Your task to perform on an android device: check battery use Image 0: 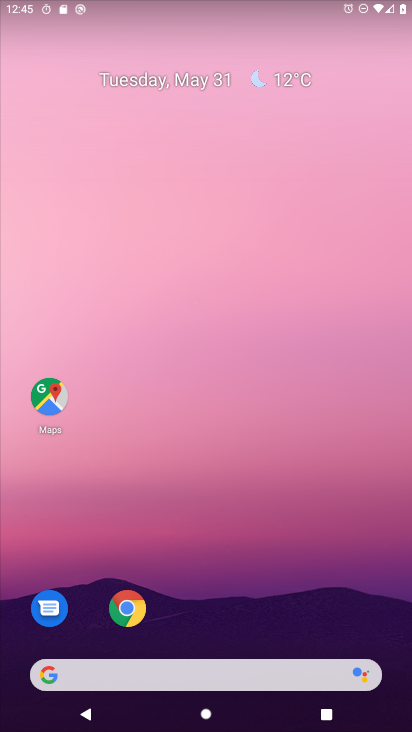
Step 0: drag from (241, 562) to (238, 12)
Your task to perform on an android device: check battery use Image 1: 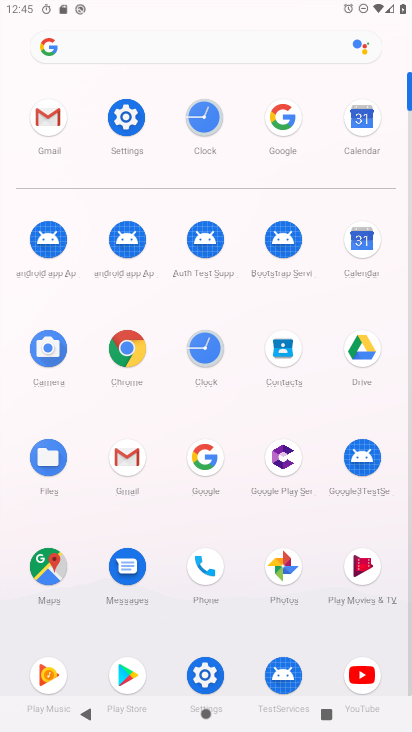
Step 1: click (129, 113)
Your task to perform on an android device: check battery use Image 2: 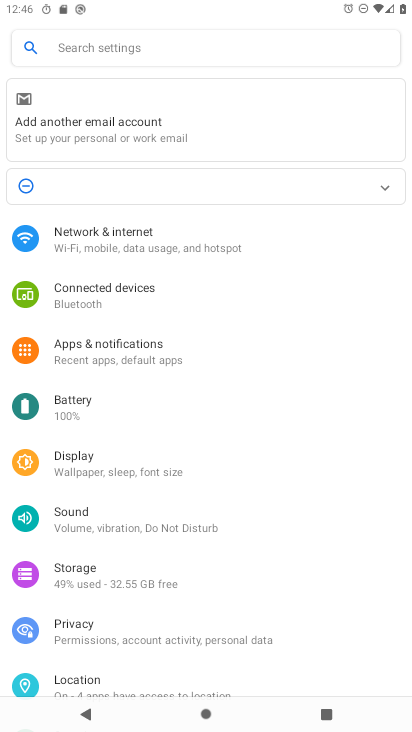
Step 2: click (61, 412)
Your task to perform on an android device: check battery use Image 3: 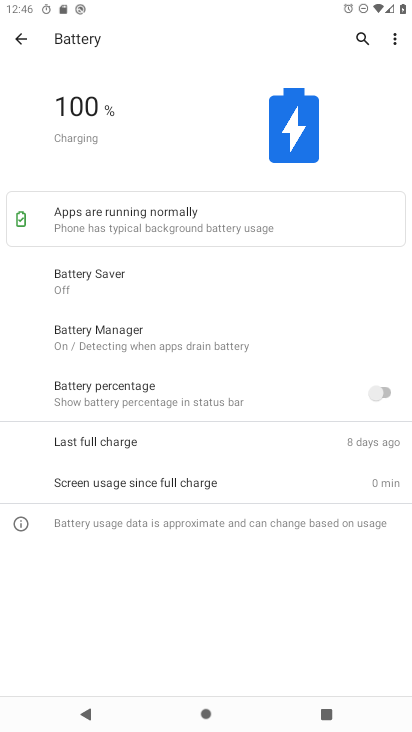
Step 3: click (396, 41)
Your task to perform on an android device: check battery use Image 4: 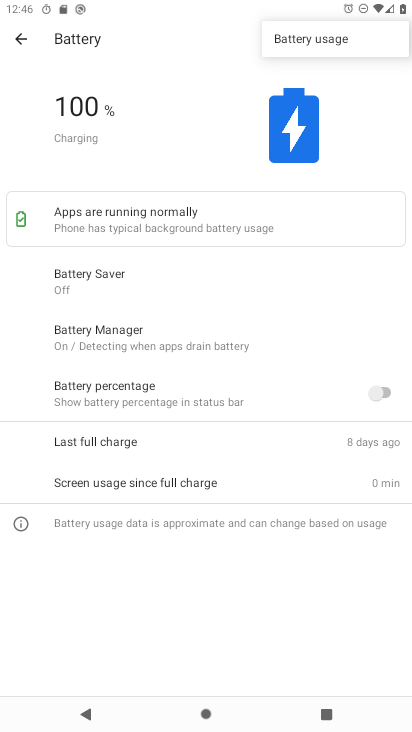
Step 4: click (338, 47)
Your task to perform on an android device: check battery use Image 5: 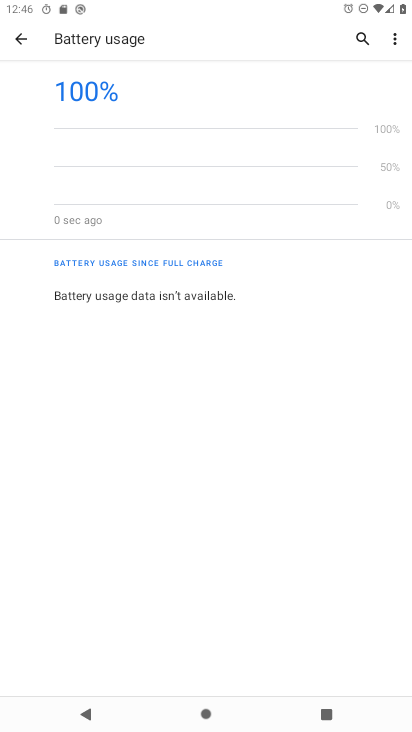
Step 5: task complete